Your task to perform on an android device: see tabs open on other devices in the chrome app Image 0: 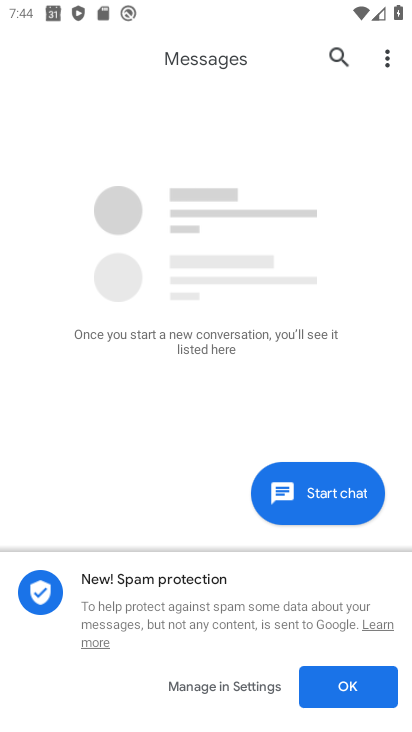
Step 0: drag from (184, 497) to (200, 213)
Your task to perform on an android device: see tabs open on other devices in the chrome app Image 1: 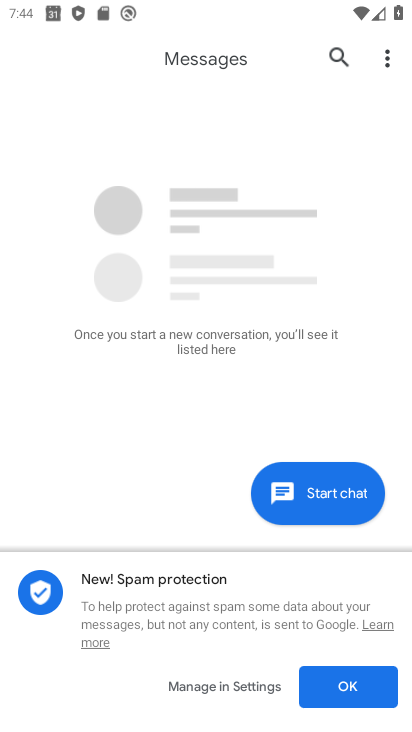
Step 1: press home button
Your task to perform on an android device: see tabs open on other devices in the chrome app Image 2: 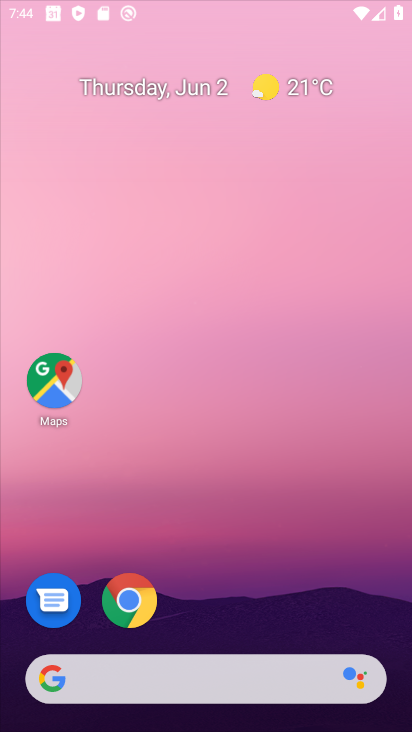
Step 2: drag from (203, 589) to (216, 83)
Your task to perform on an android device: see tabs open on other devices in the chrome app Image 3: 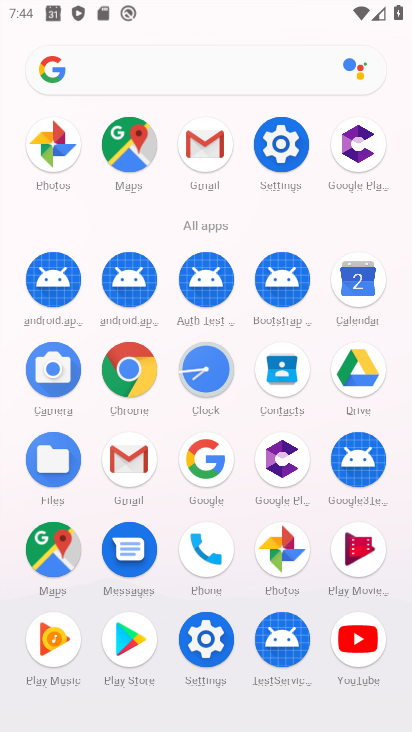
Step 3: click (142, 376)
Your task to perform on an android device: see tabs open on other devices in the chrome app Image 4: 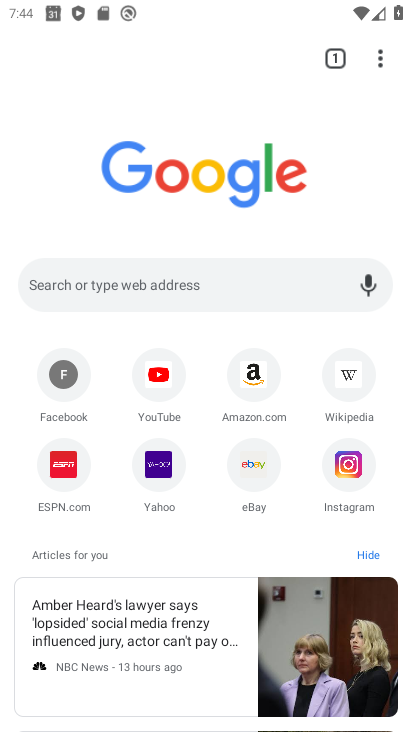
Step 4: task complete